Your task to perform on an android device: turn on the 12-hour format for clock Image 0: 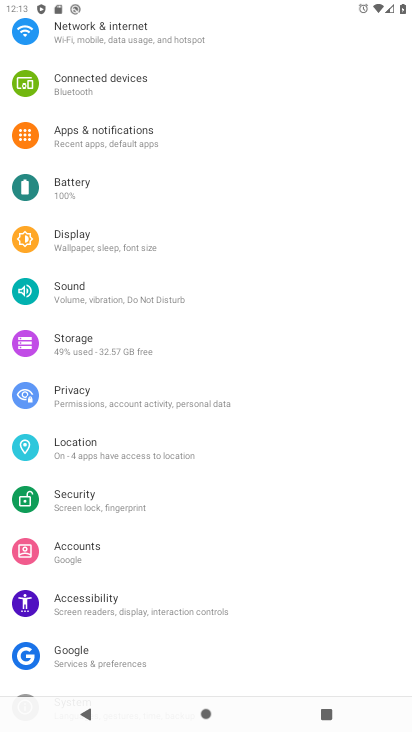
Step 0: press home button
Your task to perform on an android device: turn on the 12-hour format for clock Image 1: 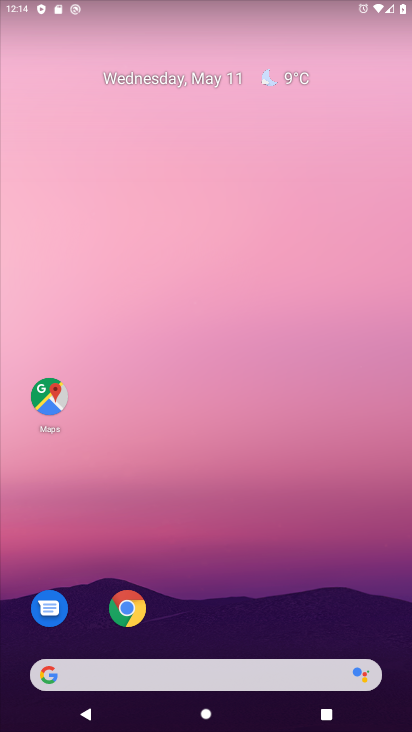
Step 1: drag from (292, 612) to (274, 314)
Your task to perform on an android device: turn on the 12-hour format for clock Image 2: 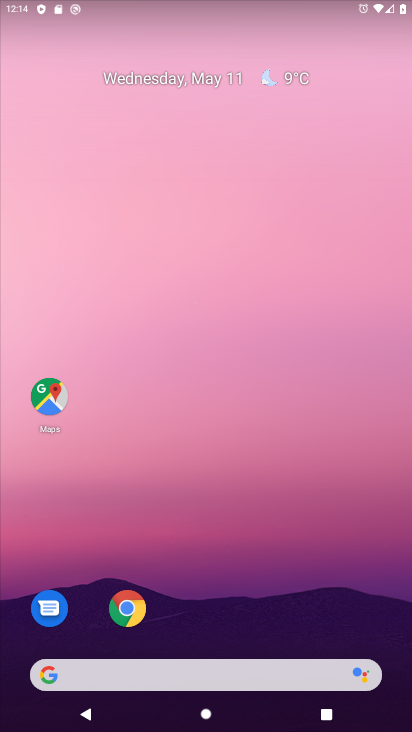
Step 2: drag from (199, 512) to (190, 27)
Your task to perform on an android device: turn on the 12-hour format for clock Image 3: 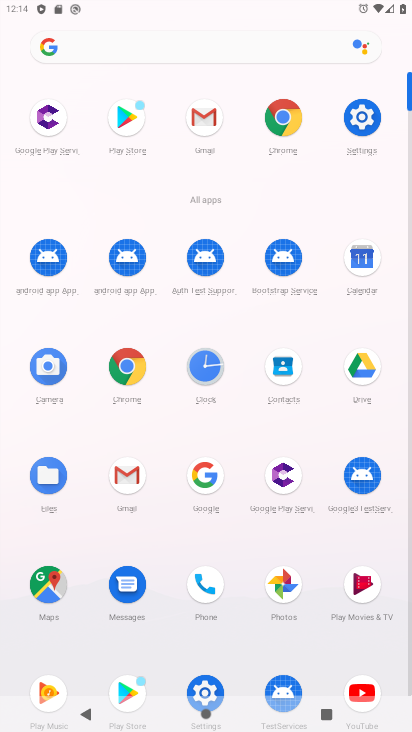
Step 3: click (213, 371)
Your task to perform on an android device: turn on the 12-hour format for clock Image 4: 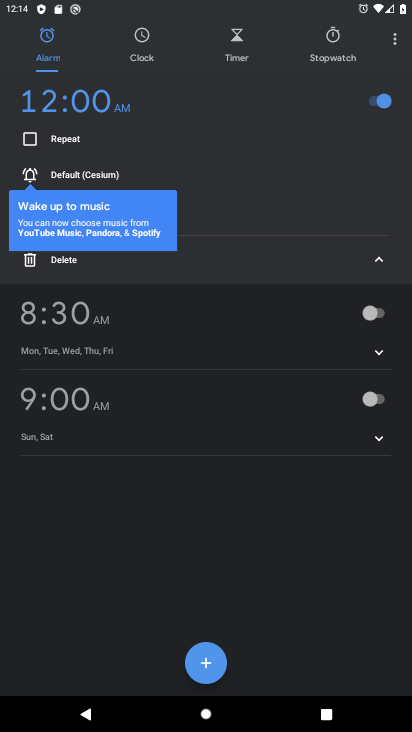
Step 4: click (392, 37)
Your task to perform on an android device: turn on the 12-hour format for clock Image 5: 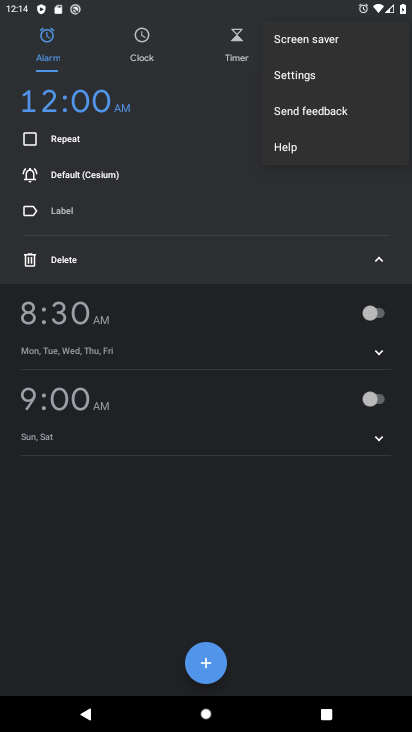
Step 5: click (327, 75)
Your task to perform on an android device: turn on the 12-hour format for clock Image 6: 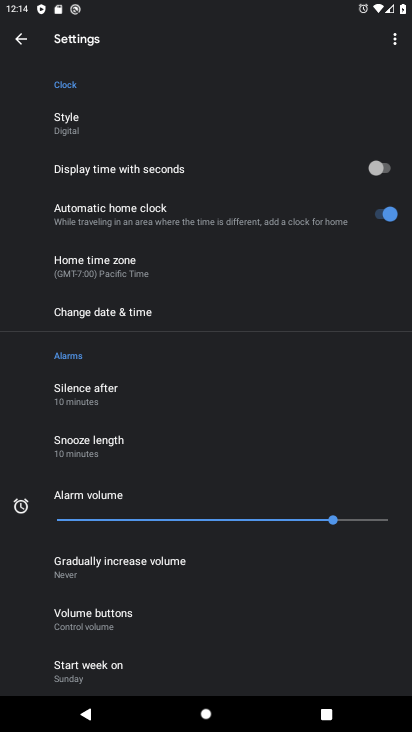
Step 6: click (169, 322)
Your task to perform on an android device: turn on the 12-hour format for clock Image 7: 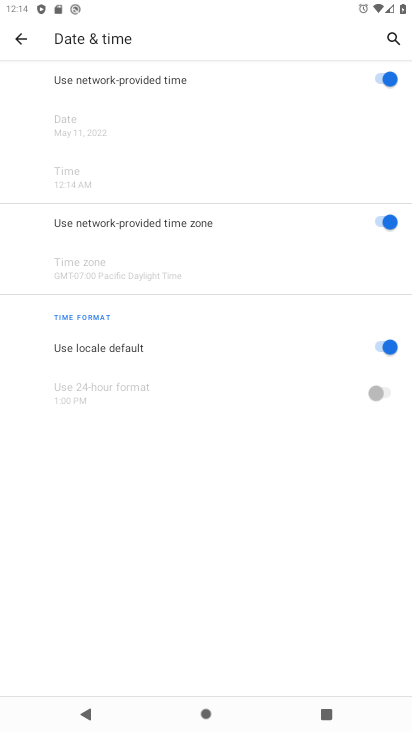
Step 7: task complete